Your task to perform on an android device: stop showing notifications on the lock screen Image 0: 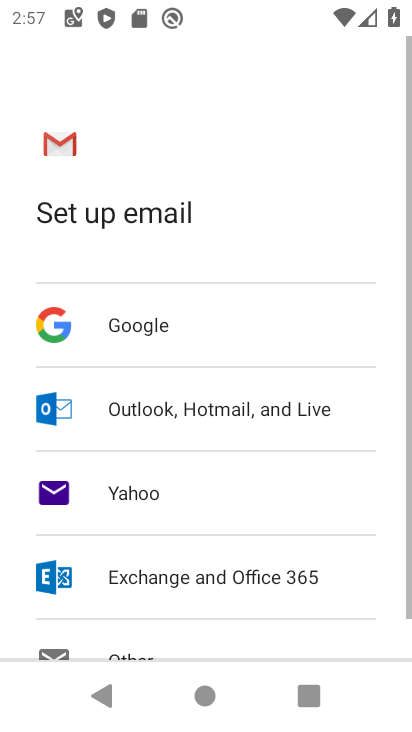
Step 0: press home button
Your task to perform on an android device: stop showing notifications on the lock screen Image 1: 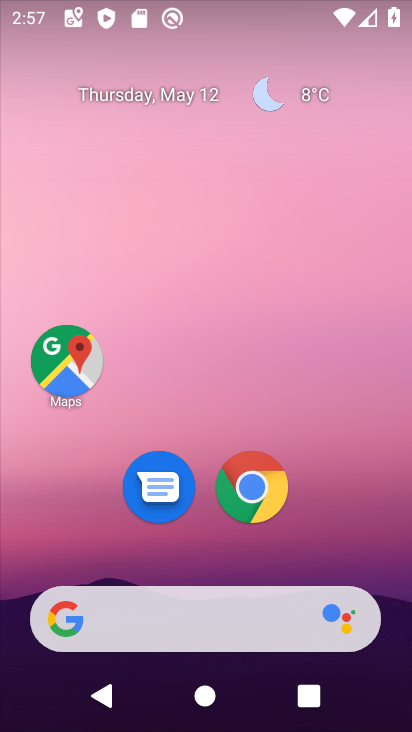
Step 1: drag from (351, 513) to (340, 45)
Your task to perform on an android device: stop showing notifications on the lock screen Image 2: 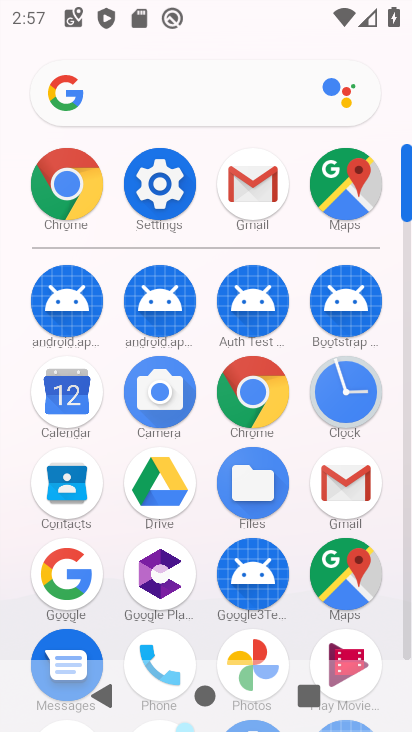
Step 2: click (170, 184)
Your task to perform on an android device: stop showing notifications on the lock screen Image 3: 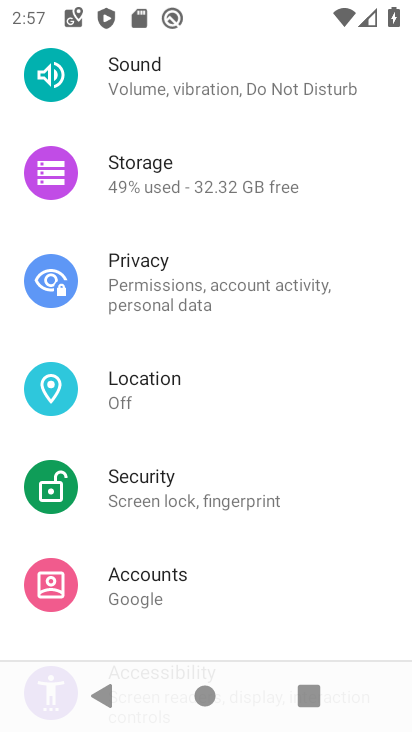
Step 3: drag from (227, 278) to (255, 584)
Your task to perform on an android device: stop showing notifications on the lock screen Image 4: 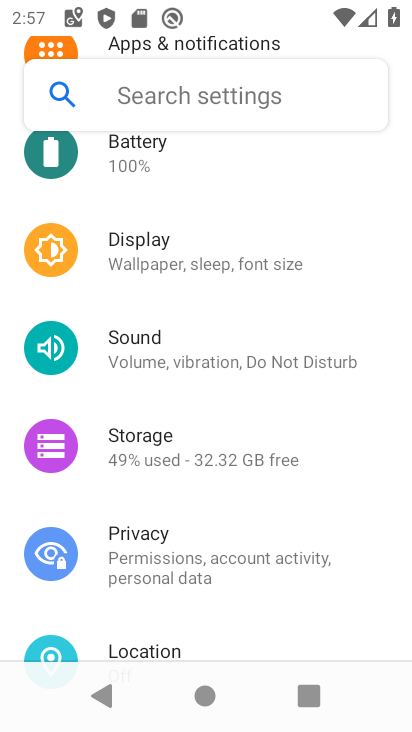
Step 4: drag from (239, 231) to (236, 565)
Your task to perform on an android device: stop showing notifications on the lock screen Image 5: 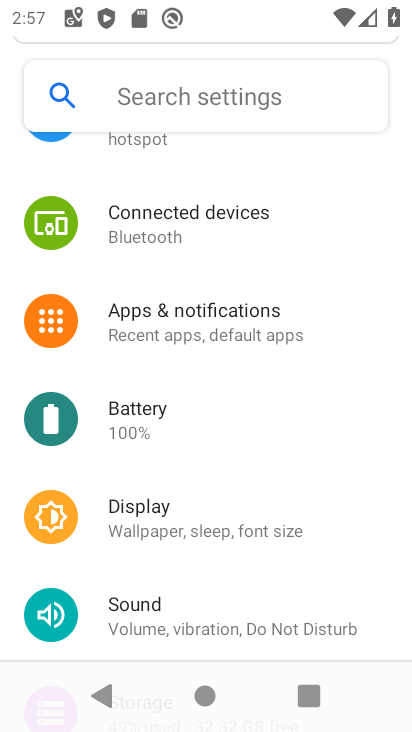
Step 5: click (207, 340)
Your task to perform on an android device: stop showing notifications on the lock screen Image 6: 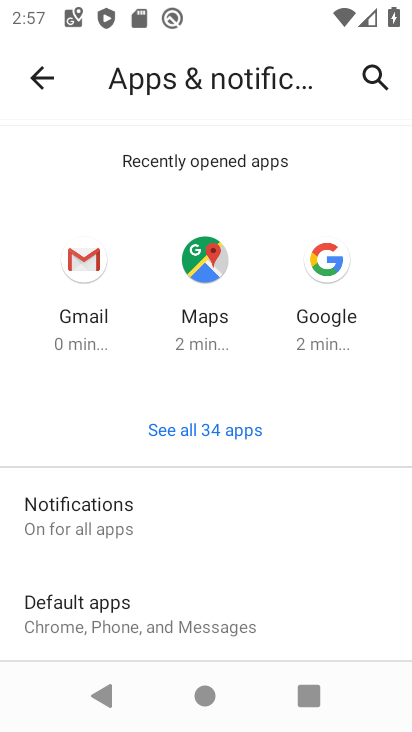
Step 6: click (100, 508)
Your task to perform on an android device: stop showing notifications on the lock screen Image 7: 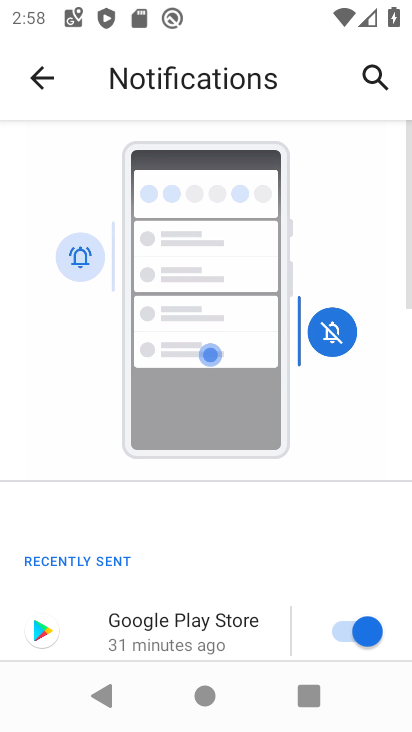
Step 7: drag from (222, 552) to (182, 124)
Your task to perform on an android device: stop showing notifications on the lock screen Image 8: 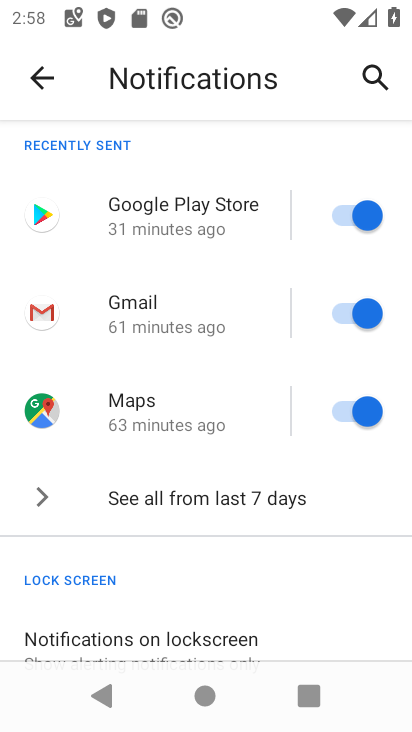
Step 8: drag from (178, 570) to (187, 171)
Your task to perform on an android device: stop showing notifications on the lock screen Image 9: 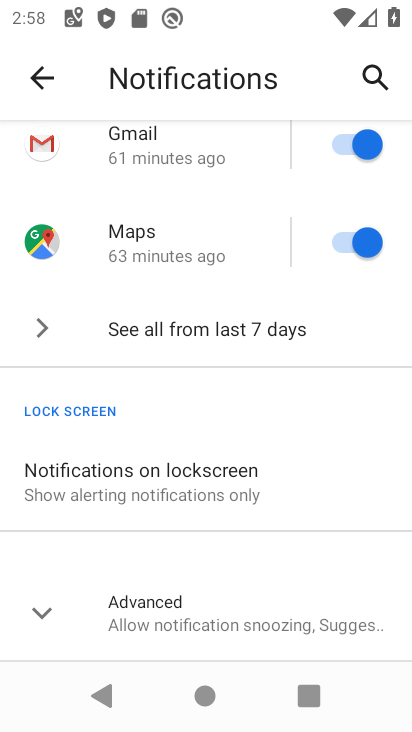
Step 9: click (129, 486)
Your task to perform on an android device: stop showing notifications on the lock screen Image 10: 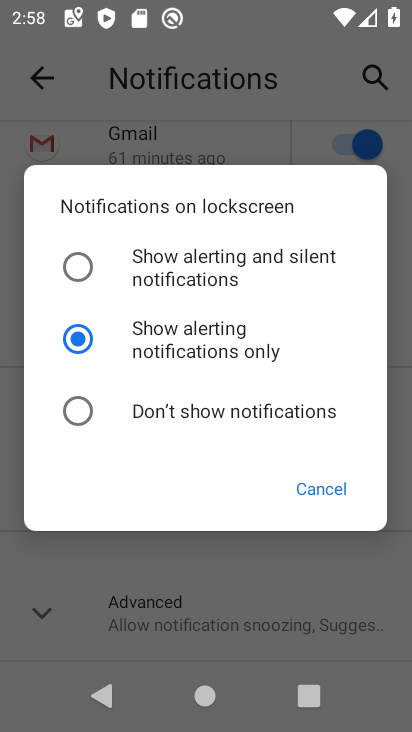
Step 10: click (235, 416)
Your task to perform on an android device: stop showing notifications on the lock screen Image 11: 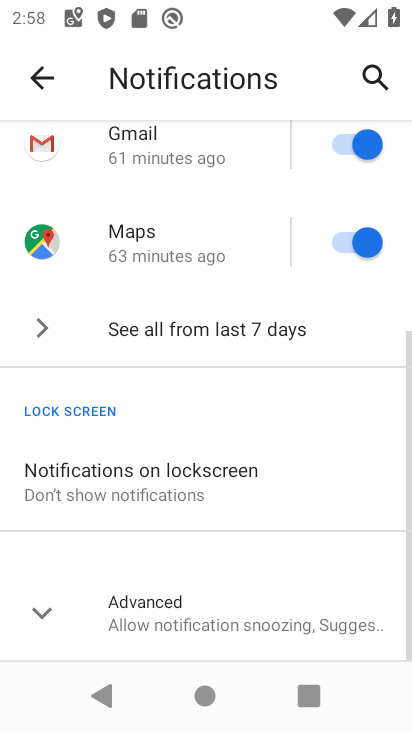
Step 11: task complete